Your task to perform on an android device: change the upload size in google photos Image 0: 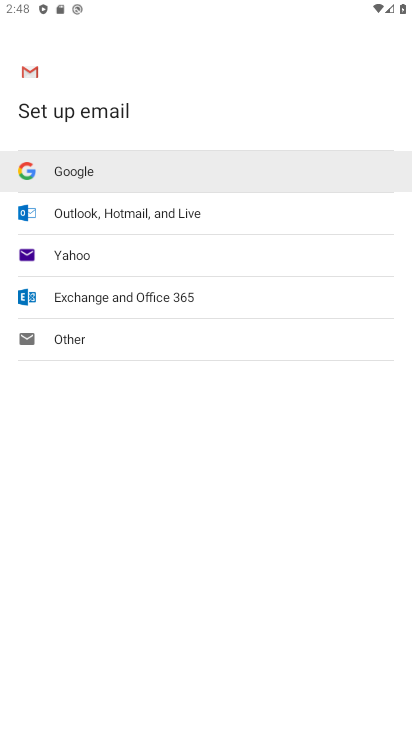
Step 0: press home button
Your task to perform on an android device: change the upload size in google photos Image 1: 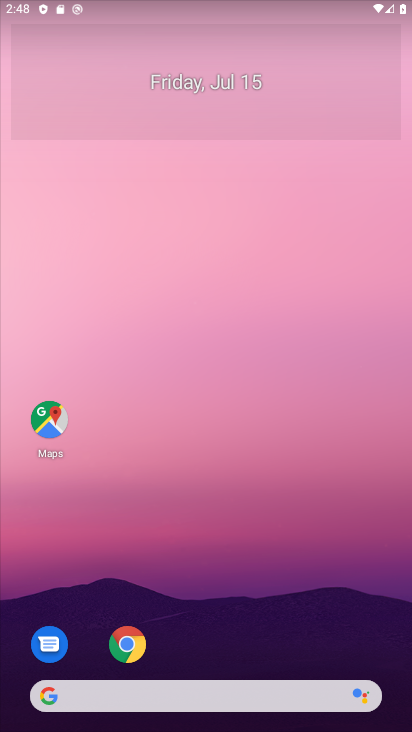
Step 1: drag from (290, 694) to (331, 3)
Your task to perform on an android device: change the upload size in google photos Image 2: 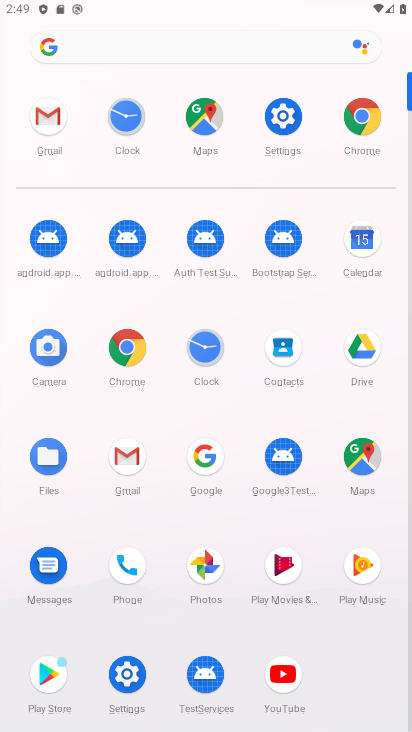
Step 2: click (199, 563)
Your task to perform on an android device: change the upload size in google photos Image 3: 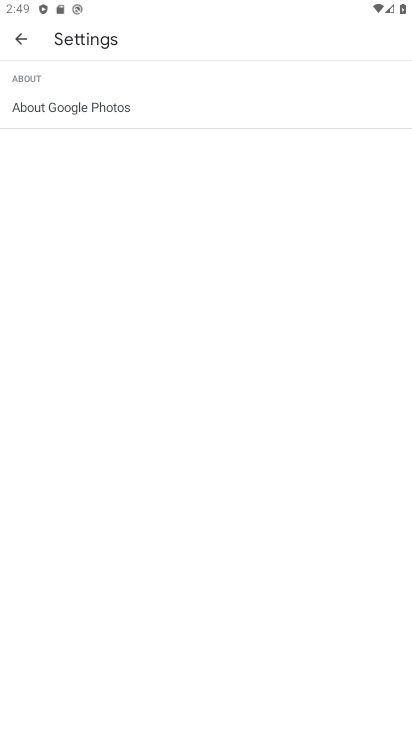
Step 3: press back button
Your task to perform on an android device: change the upload size in google photos Image 4: 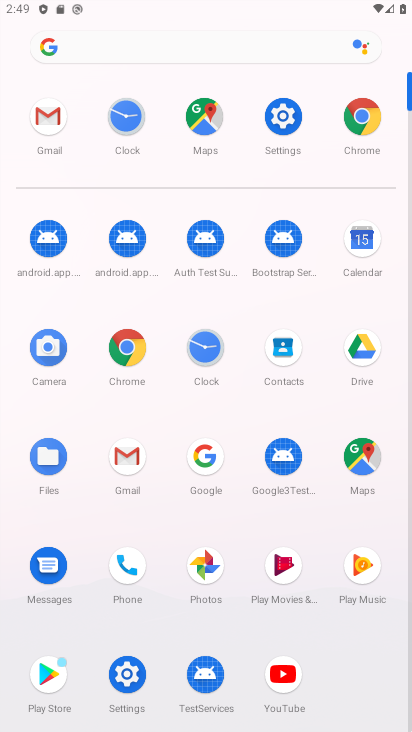
Step 4: click (211, 553)
Your task to perform on an android device: change the upload size in google photos Image 5: 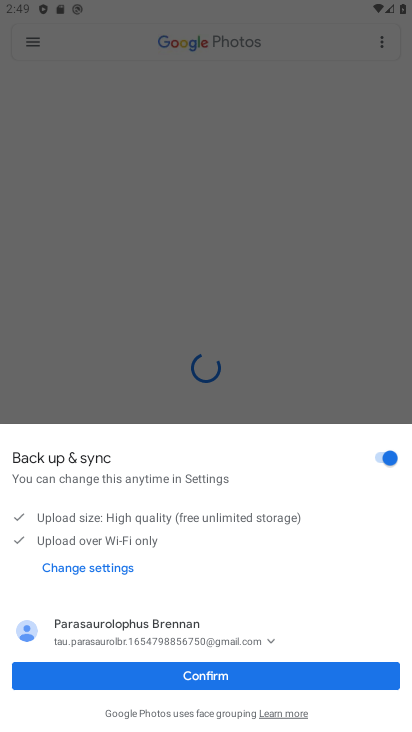
Step 5: click (284, 674)
Your task to perform on an android device: change the upload size in google photos Image 6: 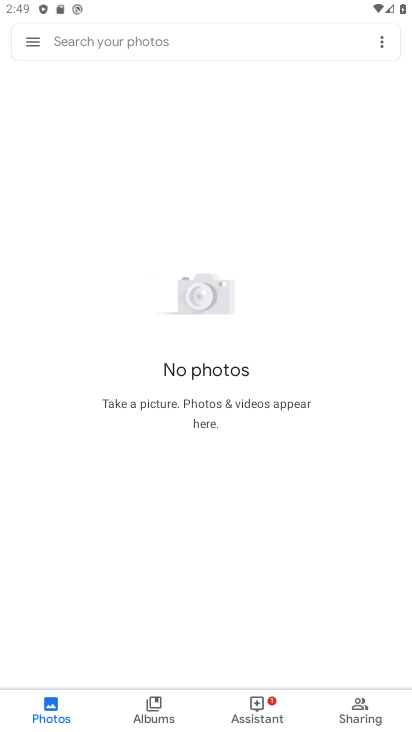
Step 6: click (28, 38)
Your task to perform on an android device: change the upload size in google photos Image 7: 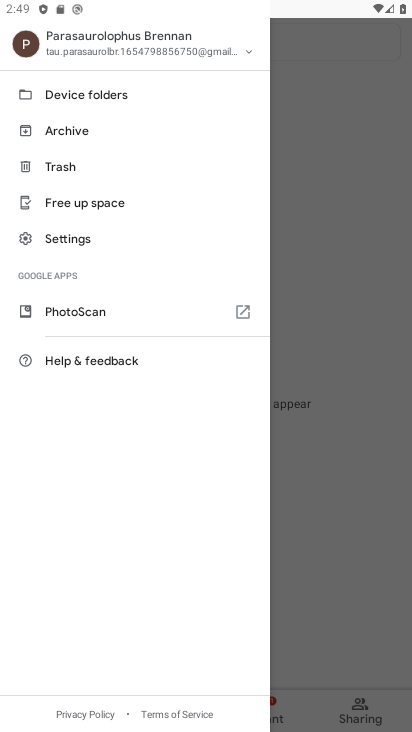
Step 7: click (95, 242)
Your task to perform on an android device: change the upload size in google photos Image 8: 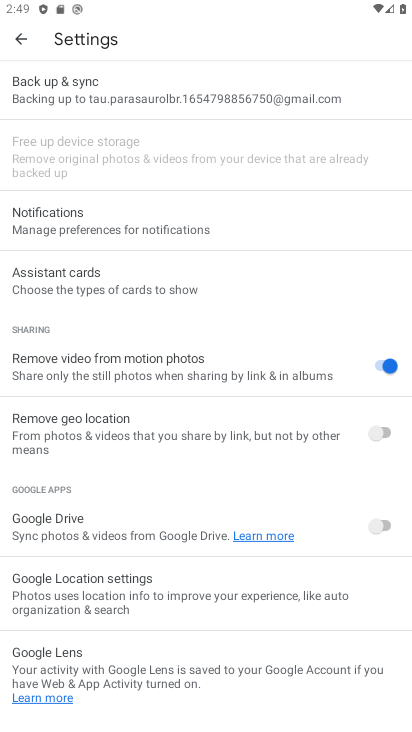
Step 8: click (150, 104)
Your task to perform on an android device: change the upload size in google photos Image 9: 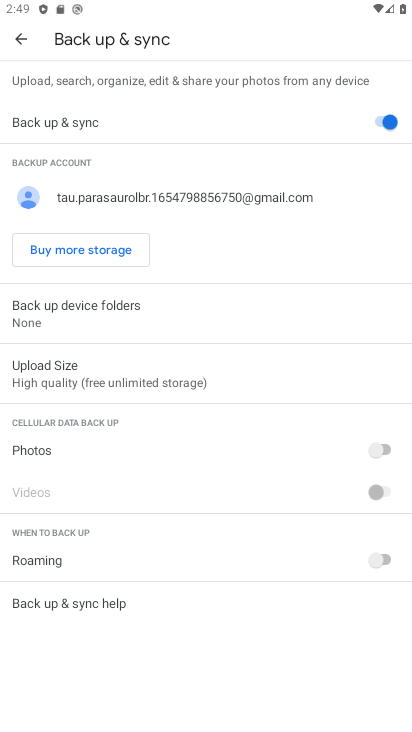
Step 9: click (92, 379)
Your task to perform on an android device: change the upload size in google photos Image 10: 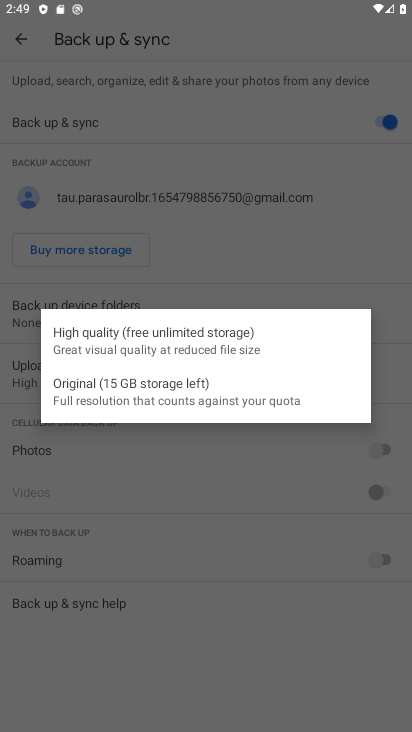
Step 10: click (104, 388)
Your task to perform on an android device: change the upload size in google photos Image 11: 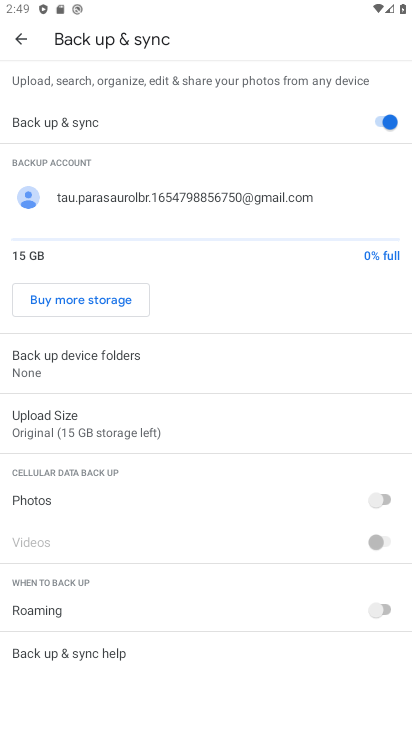
Step 11: task complete